Your task to perform on an android device: turn on javascript in the chrome app Image 0: 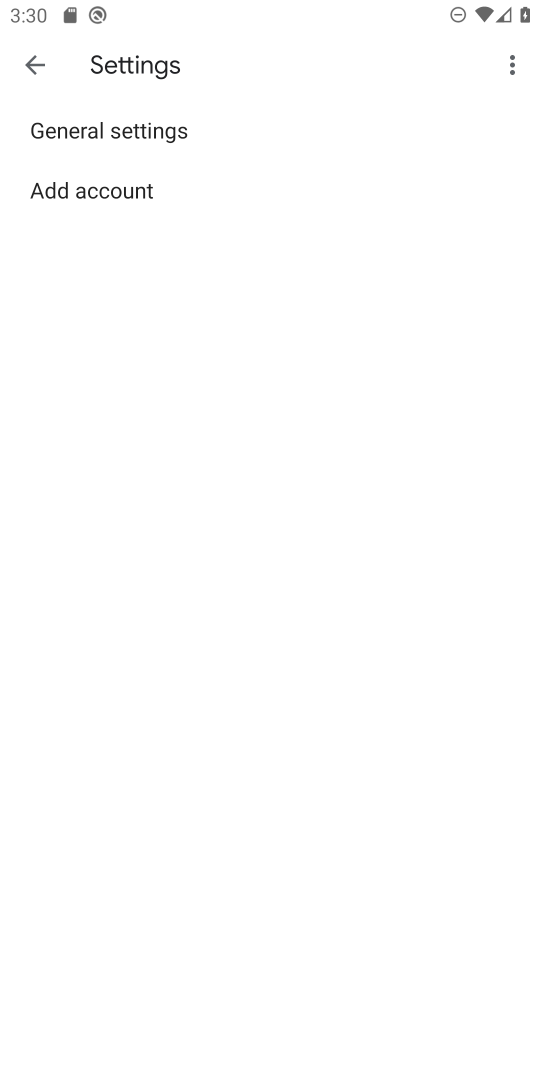
Step 0: press home button
Your task to perform on an android device: turn on javascript in the chrome app Image 1: 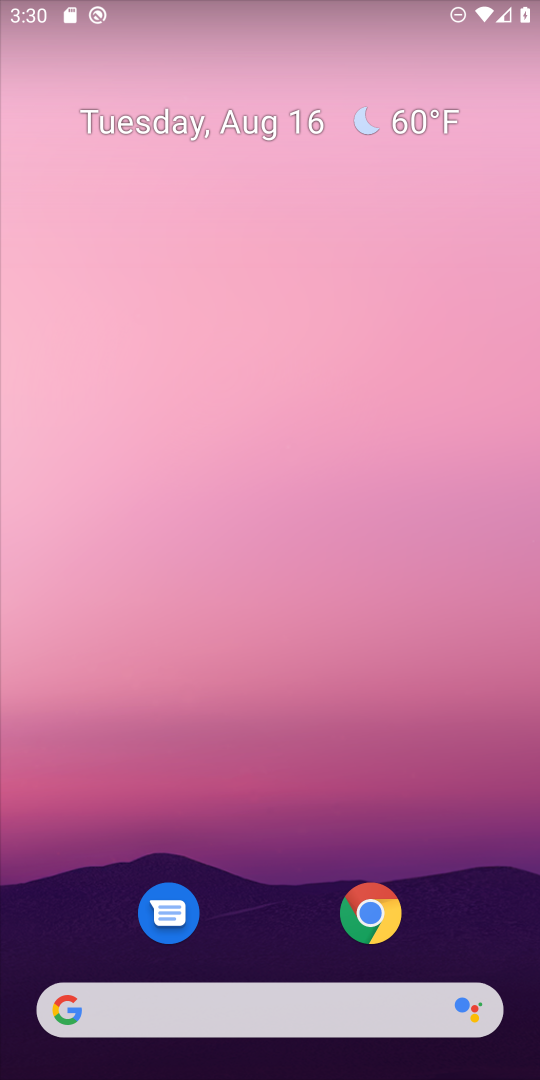
Step 1: click (371, 912)
Your task to perform on an android device: turn on javascript in the chrome app Image 2: 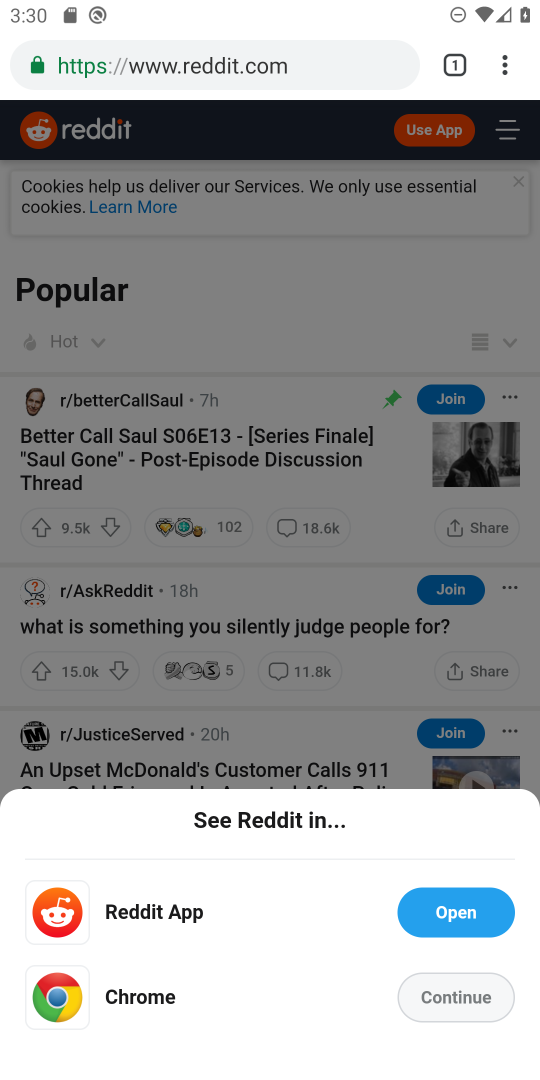
Step 2: click (503, 68)
Your task to perform on an android device: turn on javascript in the chrome app Image 3: 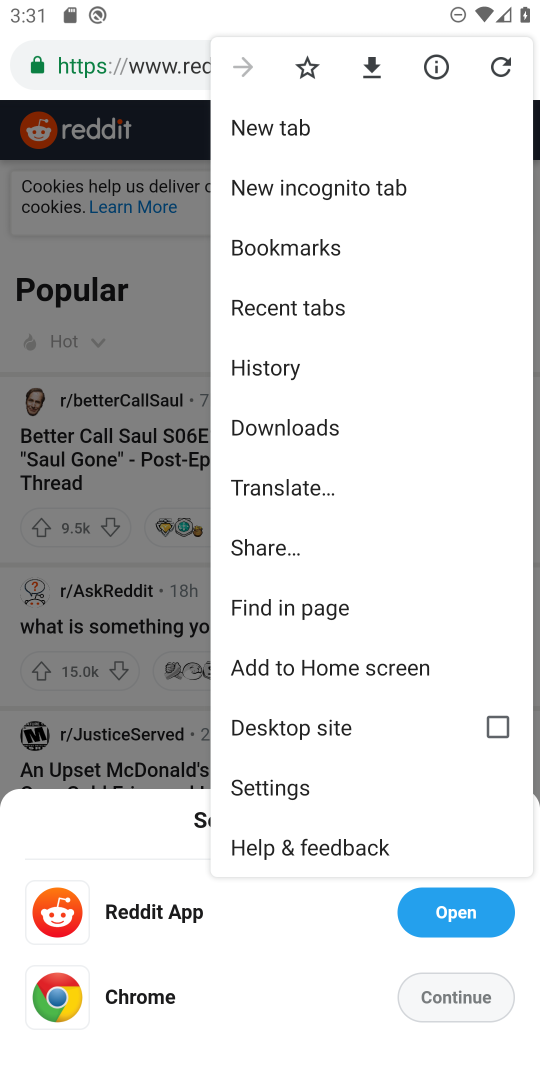
Step 3: click (278, 782)
Your task to perform on an android device: turn on javascript in the chrome app Image 4: 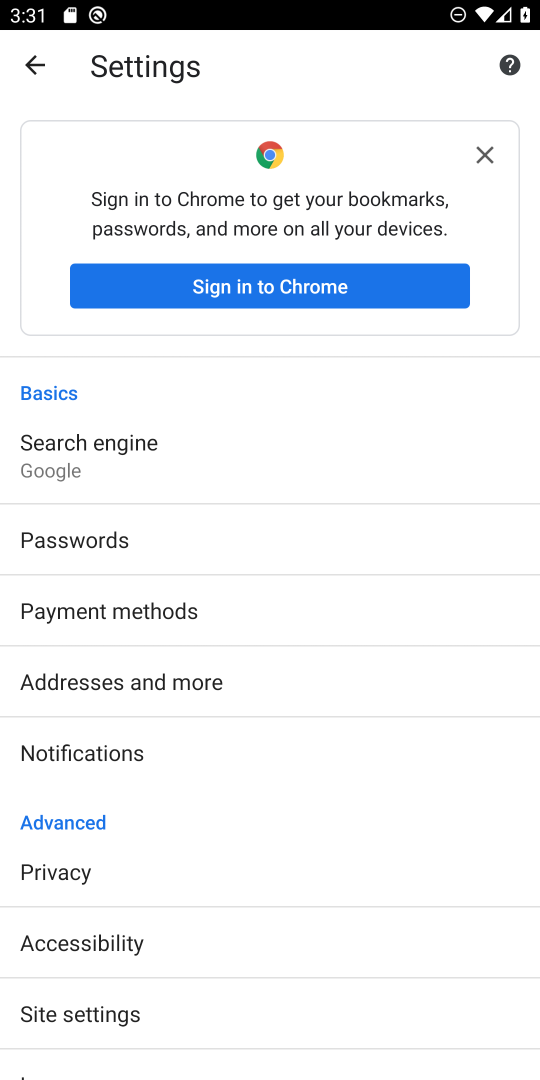
Step 4: drag from (253, 978) to (266, 536)
Your task to perform on an android device: turn on javascript in the chrome app Image 5: 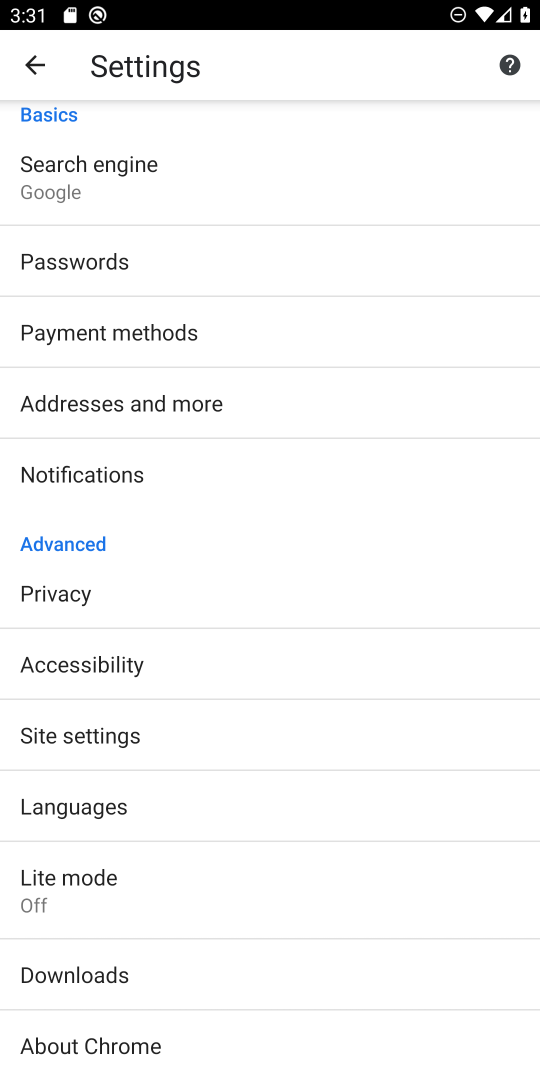
Step 5: click (63, 726)
Your task to perform on an android device: turn on javascript in the chrome app Image 6: 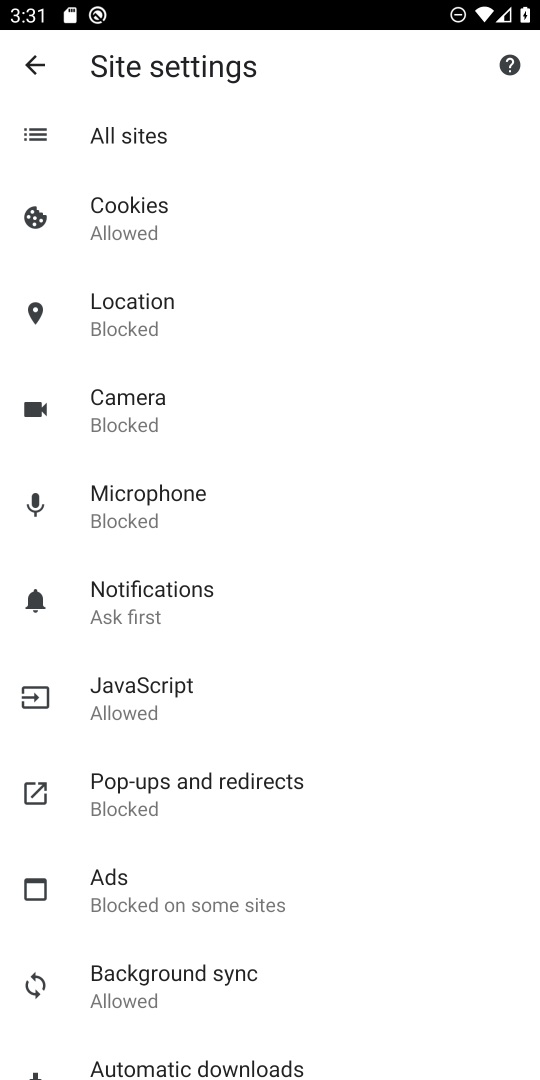
Step 6: click (114, 695)
Your task to perform on an android device: turn on javascript in the chrome app Image 7: 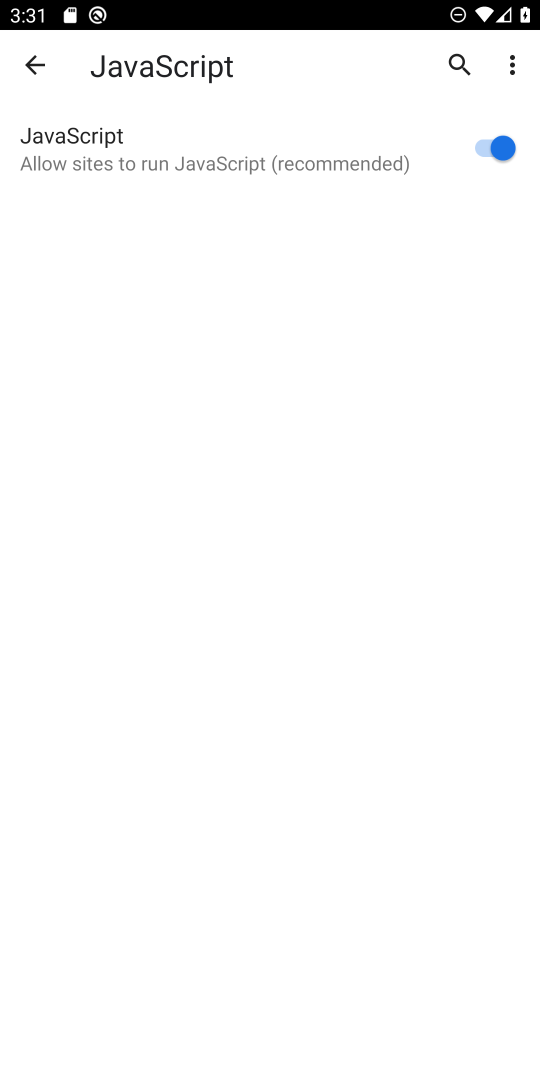
Step 7: task complete